Your task to perform on an android device: turn off notifications settings in the gmail app Image 0: 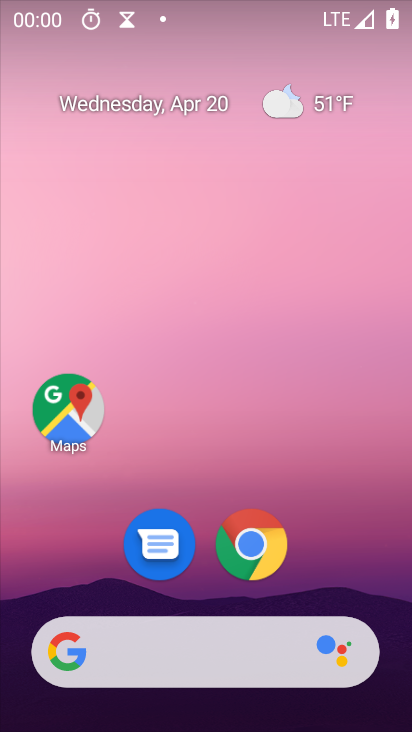
Step 0: drag from (350, 601) to (381, 92)
Your task to perform on an android device: turn off notifications settings in the gmail app Image 1: 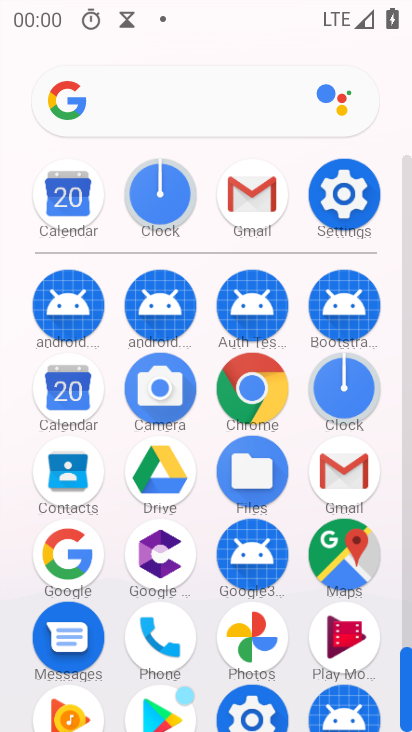
Step 1: click (345, 483)
Your task to perform on an android device: turn off notifications settings in the gmail app Image 2: 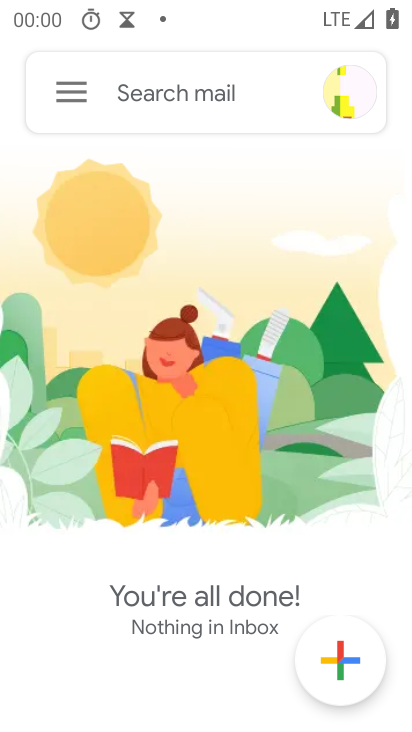
Step 2: click (53, 92)
Your task to perform on an android device: turn off notifications settings in the gmail app Image 3: 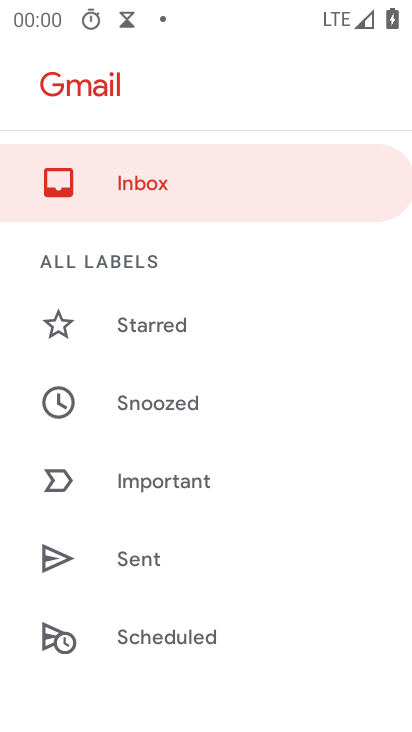
Step 3: drag from (166, 616) to (183, 527)
Your task to perform on an android device: turn off notifications settings in the gmail app Image 4: 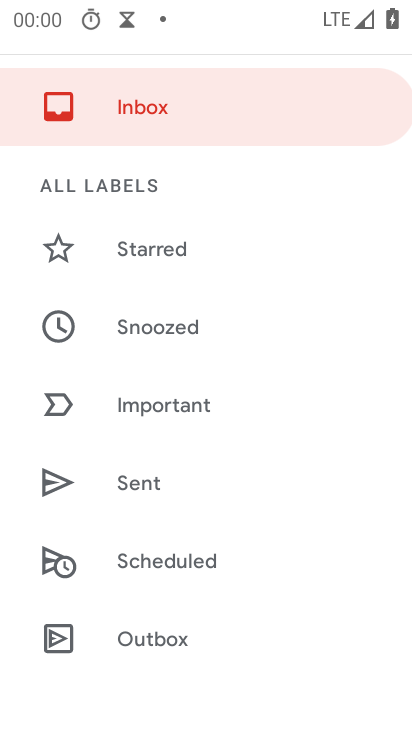
Step 4: drag from (160, 621) to (187, 504)
Your task to perform on an android device: turn off notifications settings in the gmail app Image 5: 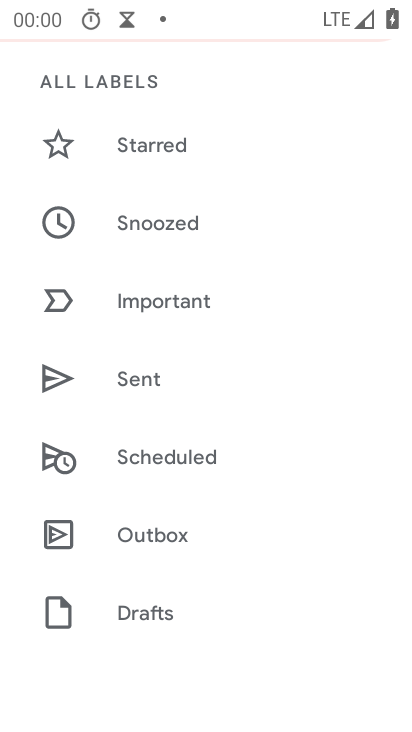
Step 5: drag from (164, 599) to (216, 475)
Your task to perform on an android device: turn off notifications settings in the gmail app Image 6: 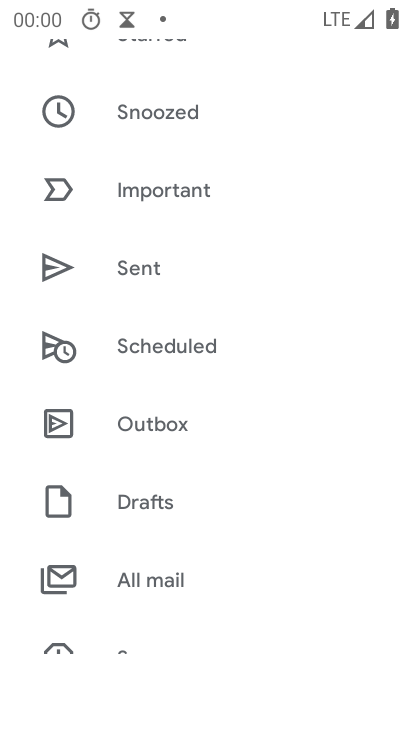
Step 6: drag from (165, 596) to (193, 492)
Your task to perform on an android device: turn off notifications settings in the gmail app Image 7: 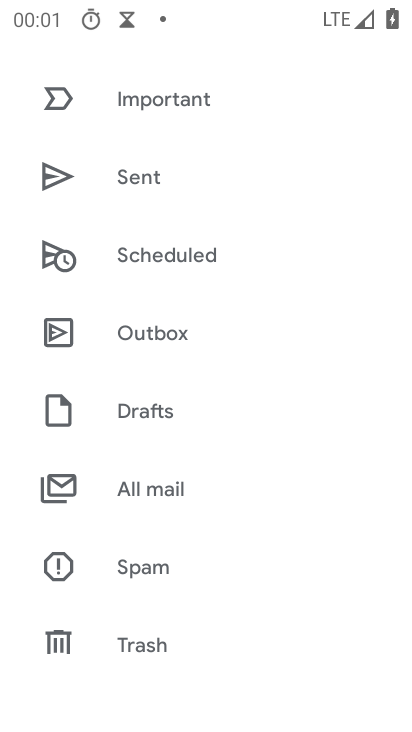
Step 7: drag from (186, 563) to (198, 487)
Your task to perform on an android device: turn off notifications settings in the gmail app Image 8: 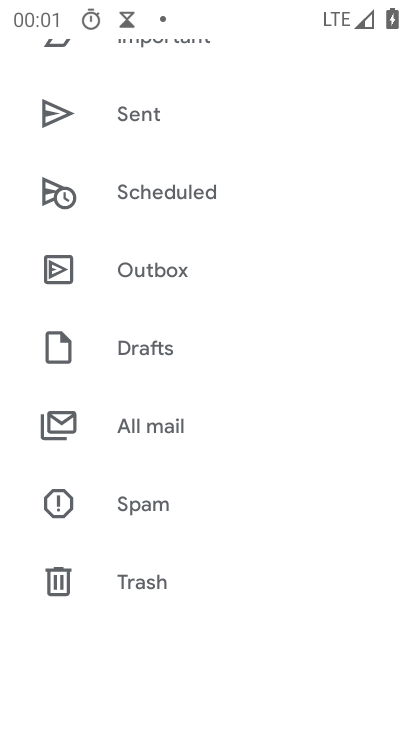
Step 8: drag from (167, 566) to (179, 485)
Your task to perform on an android device: turn off notifications settings in the gmail app Image 9: 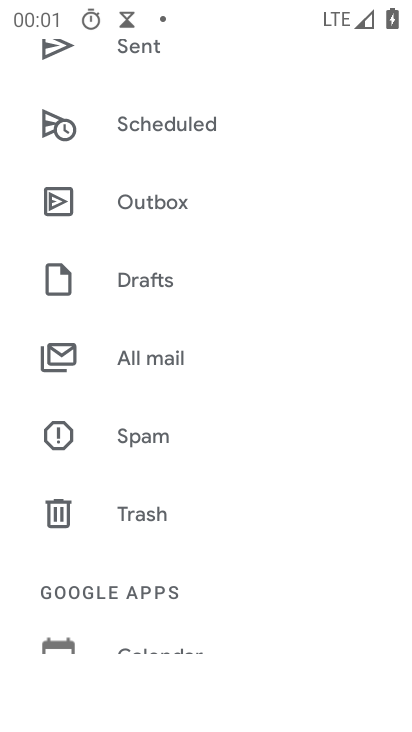
Step 9: drag from (180, 562) to (192, 510)
Your task to perform on an android device: turn off notifications settings in the gmail app Image 10: 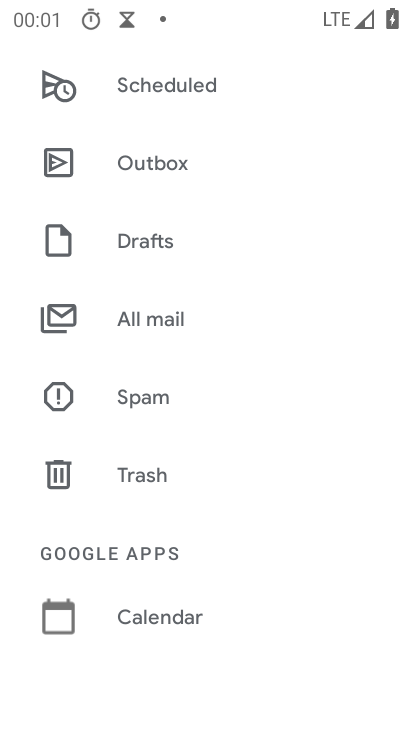
Step 10: drag from (174, 556) to (193, 492)
Your task to perform on an android device: turn off notifications settings in the gmail app Image 11: 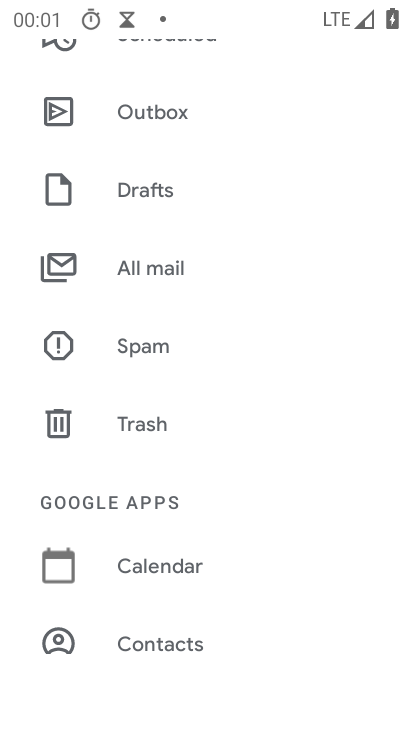
Step 11: drag from (172, 577) to (182, 509)
Your task to perform on an android device: turn off notifications settings in the gmail app Image 12: 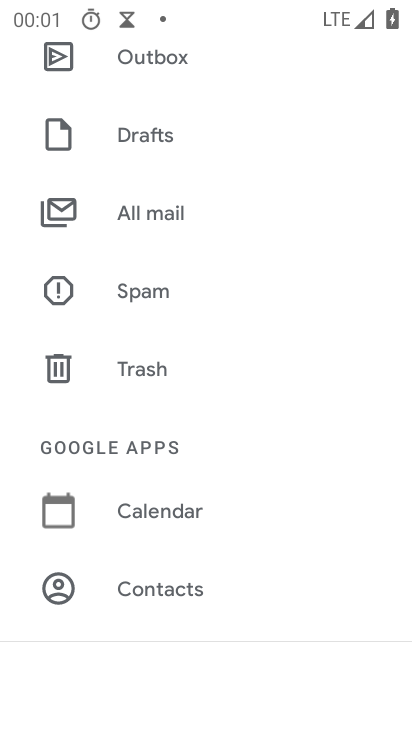
Step 12: drag from (167, 577) to (184, 498)
Your task to perform on an android device: turn off notifications settings in the gmail app Image 13: 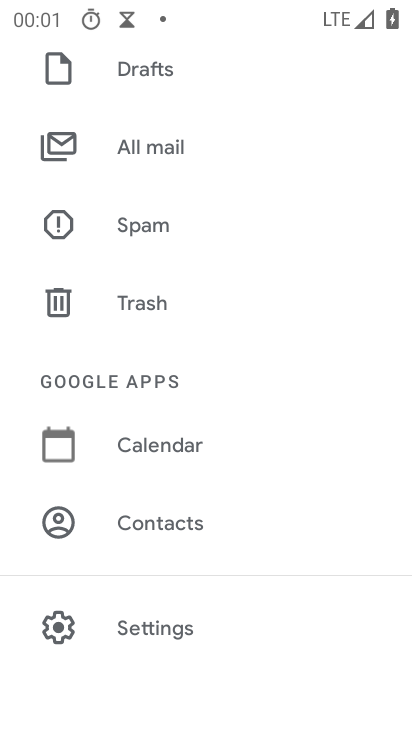
Step 13: click (195, 626)
Your task to perform on an android device: turn off notifications settings in the gmail app Image 14: 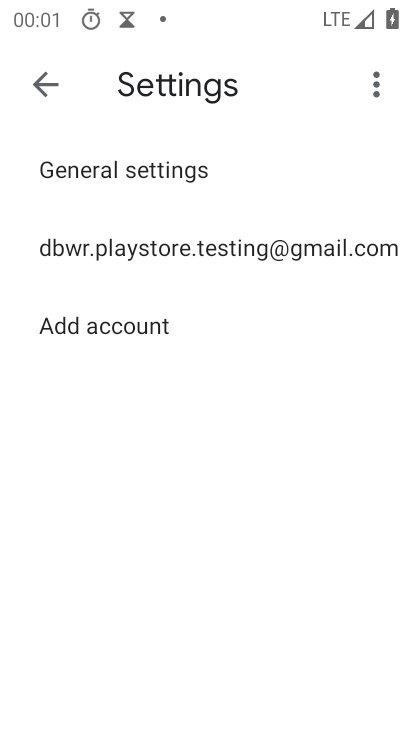
Step 14: click (214, 258)
Your task to perform on an android device: turn off notifications settings in the gmail app Image 15: 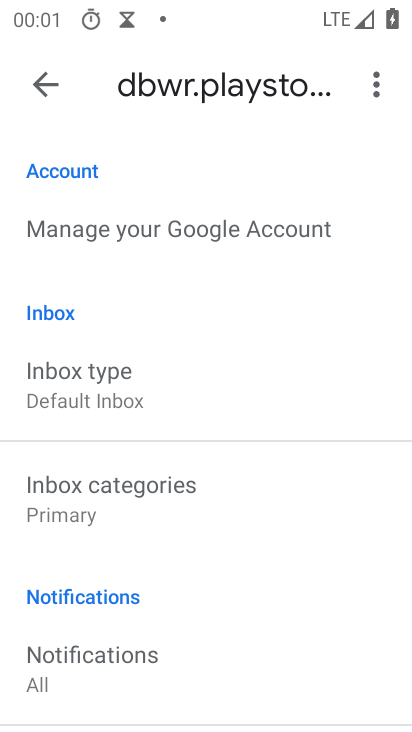
Step 15: drag from (160, 520) to (161, 457)
Your task to perform on an android device: turn off notifications settings in the gmail app Image 16: 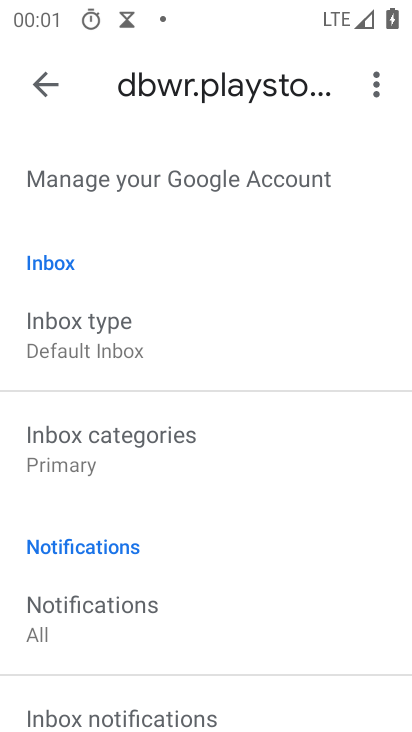
Step 16: drag from (160, 518) to (157, 457)
Your task to perform on an android device: turn off notifications settings in the gmail app Image 17: 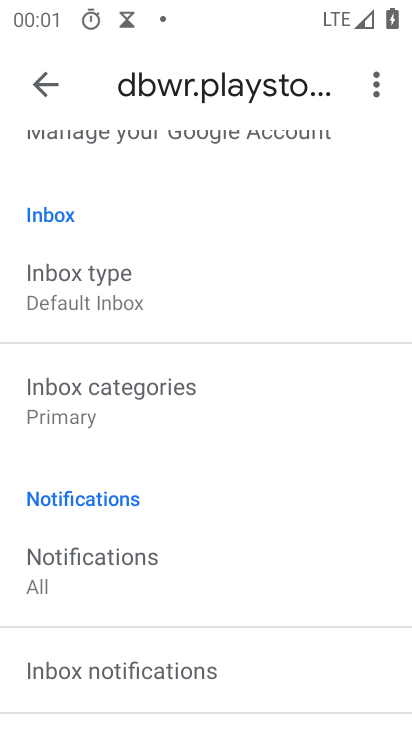
Step 17: drag from (156, 571) to (162, 494)
Your task to perform on an android device: turn off notifications settings in the gmail app Image 18: 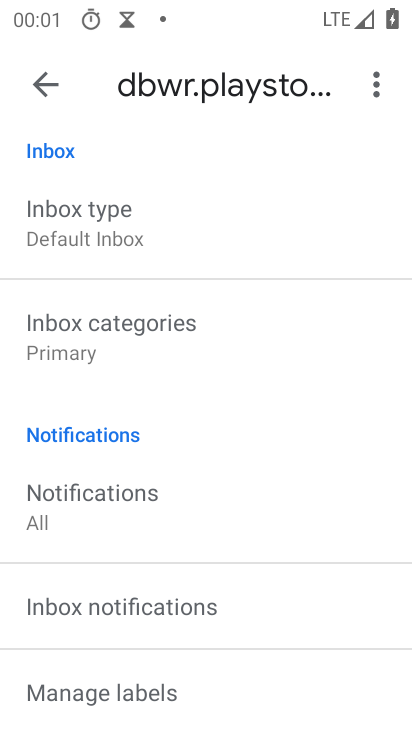
Step 18: drag from (122, 609) to (119, 541)
Your task to perform on an android device: turn off notifications settings in the gmail app Image 19: 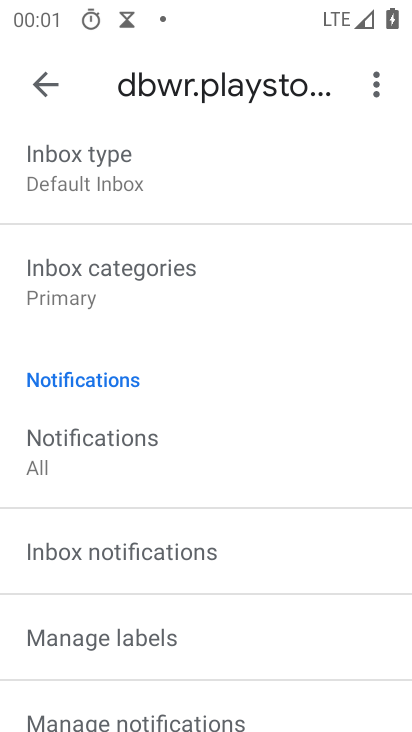
Step 19: drag from (74, 626) to (116, 547)
Your task to perform on an android device: turn off notifications settings in the gmail app Image 20: 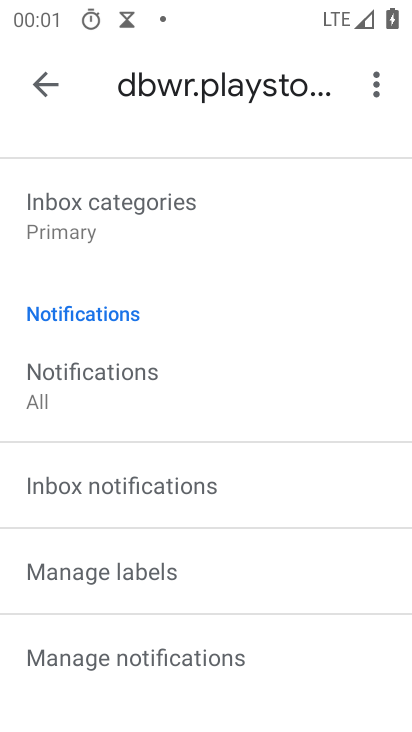
Step 20: drag from (95, 612) to (103, 553)
Your task to perform on an android device: turn off notifications settings in the gmail app Image 21: 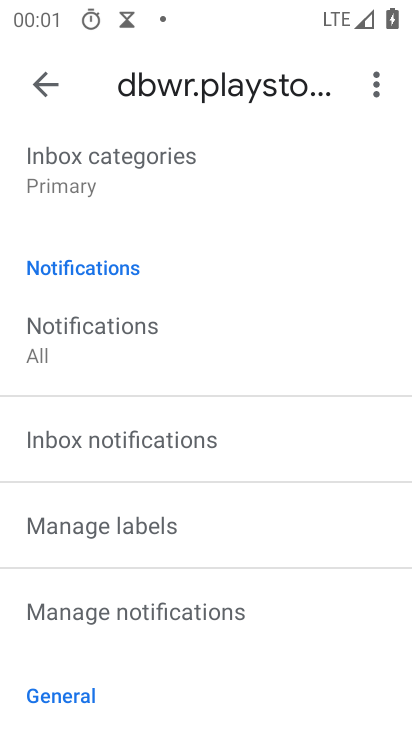
Step 21: click (101, 605)
Your task to perform on an android device: turn off notifications settings in the gmail app Image 22: 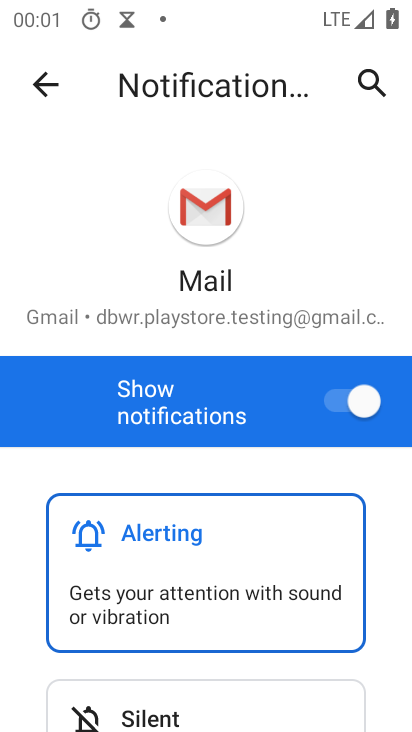
Step 22: click (319, 404)
Your task to perform on an android device: turn off notifications settings in the gmail app Image 23: 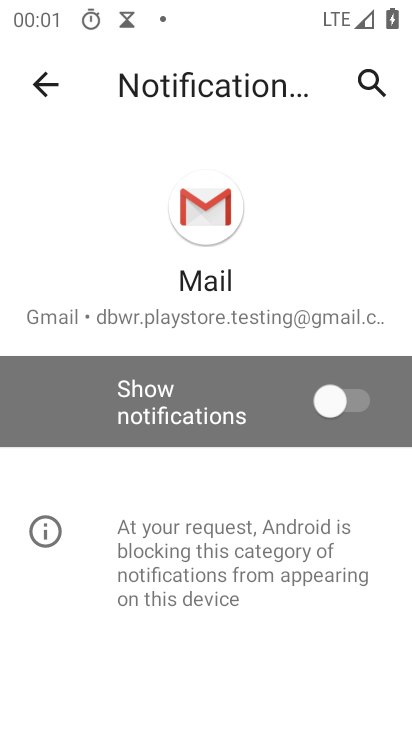
Step 23: task complete